Your task to perform on an android device: Go to battery settings Image 0: 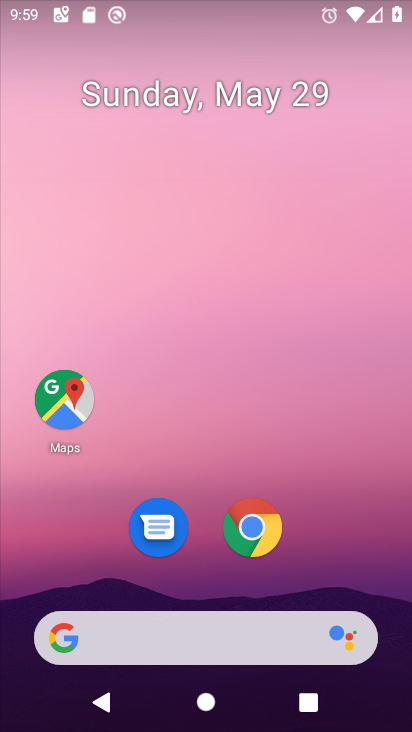
Step 0: press home button
Your task to perform on an android device: Go to battery settings Image 1: 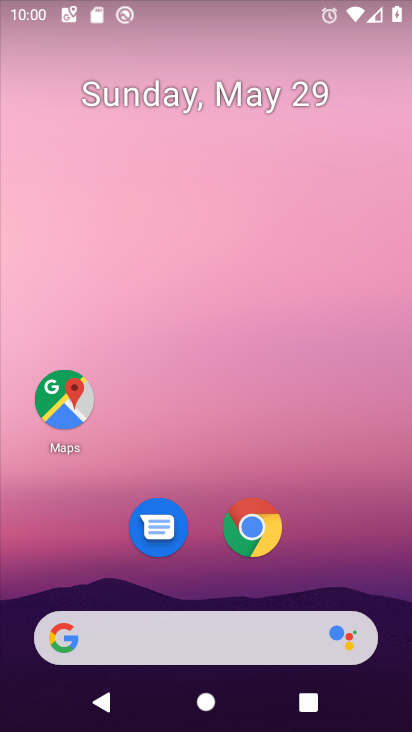
Step 1: drag from (204, 545) to (240, 115)
Your task to perform on an android device: Go to battery settings Image 2: 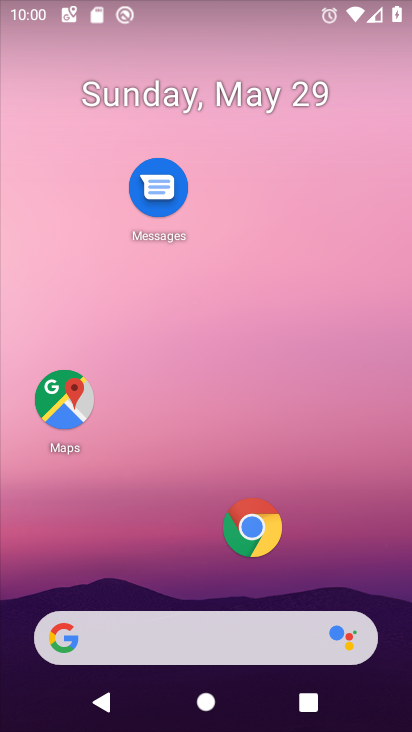
Step 2: drag from (201, 580) to (210, 97)
Your task to perform on an android device: Go to battery settings Image 3: 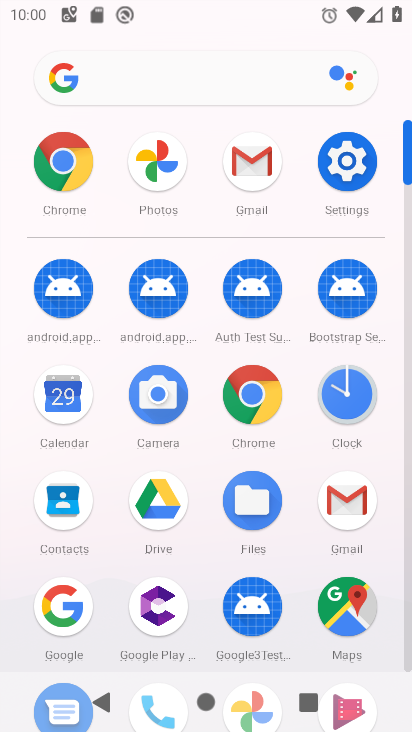
Step 3: click (348, 157)
Your task to perform on an android device: Go to battery settings Image 4: 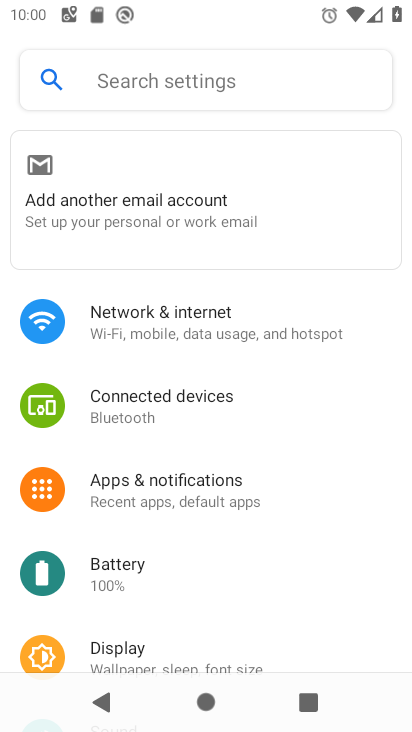
Step 4: click (157, 570)
Your task to perform on an android device: Go to battery settings Image 5: 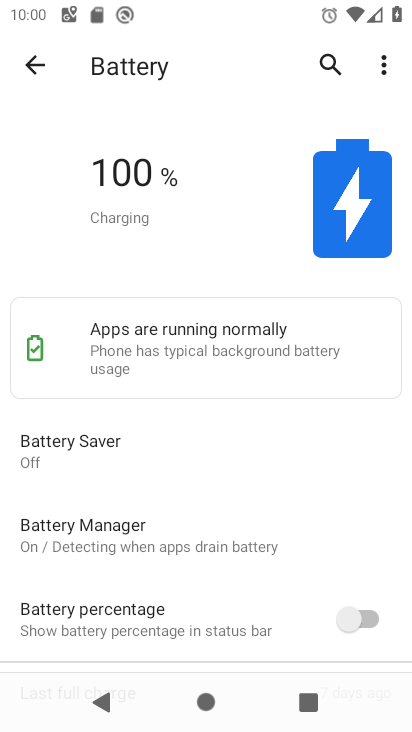
Step 5: task complete